Your task to perform on an android device: uninstall "Indeed Job Search" Image 0: 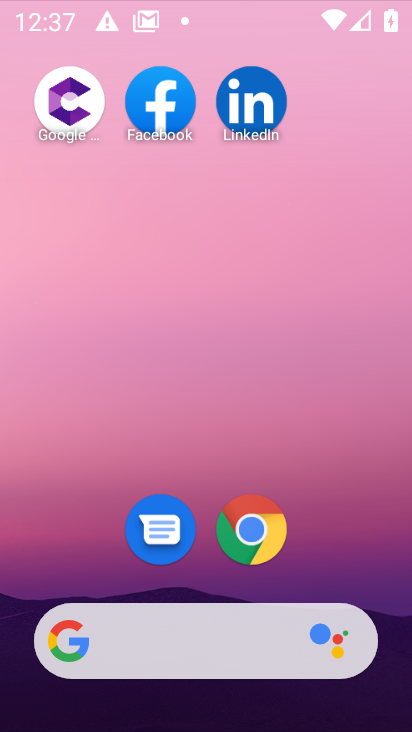
Step 0: drag from (162, 630) to (111, 56)
Your task to perform on an android device: uninstall "Indeed Job Search" Image 1: 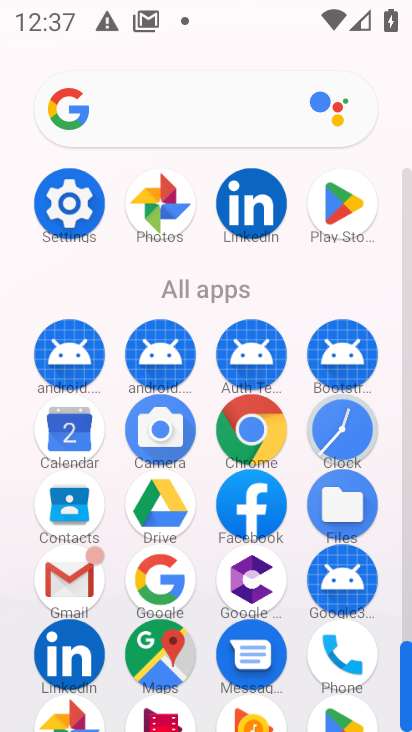
Step 1: click (335, 225)
Your task to perform on an android device: uninstall "Indeed Job Search" Image 2: 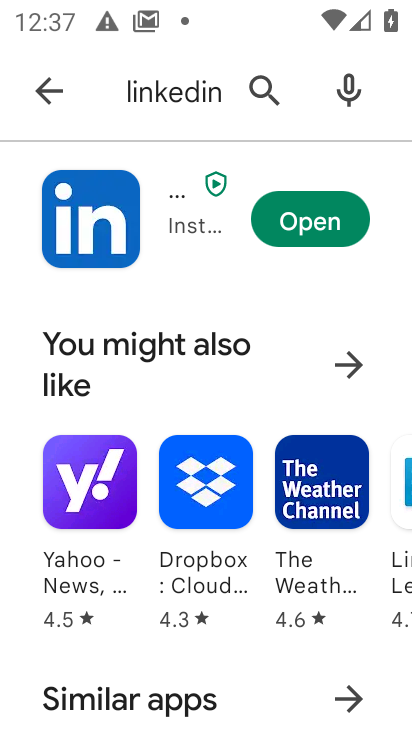
Step 2: click (272, 96)
Your task to perform on an android device: uninstall "Indeed Job Search" Image 3: 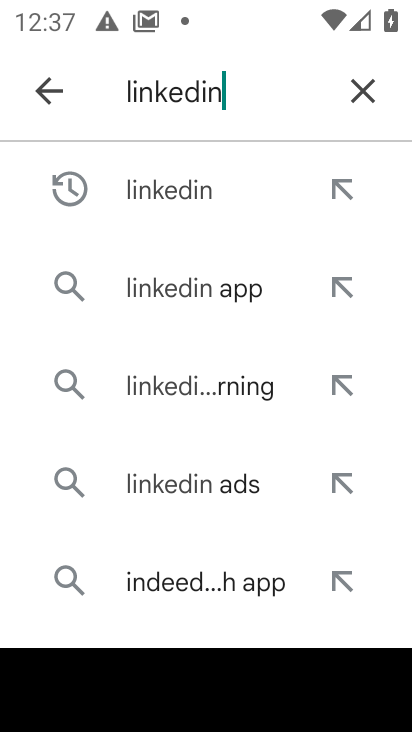
Step 3: click (362, 84)
Your task to perform on an android device: uninstall "Indeed Job Search" Image 4: 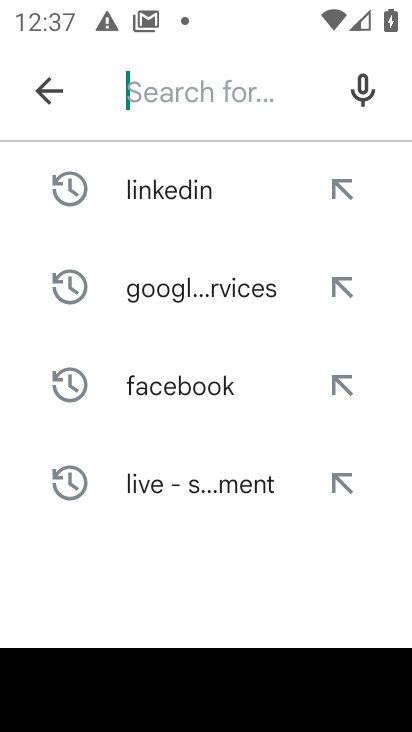
Step 4: type "Indeed Job Search"
Your task to perform on an android device: uninstall "Indeed Job Search" Image 5: 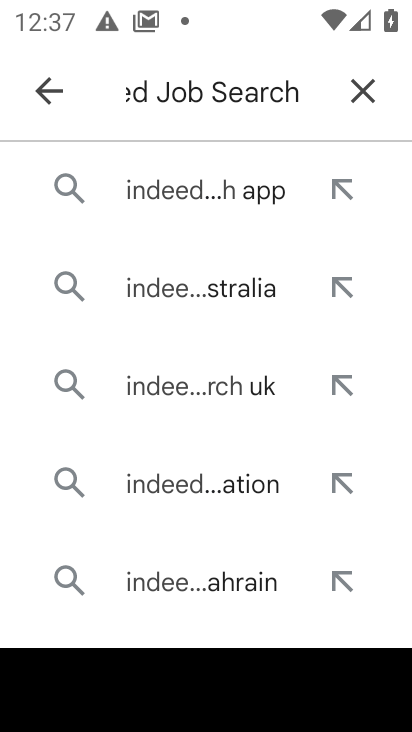
Step 5: click (228, 201)
Your task to perform on an android device: uninstall "Indeed Job Search" Image 6: 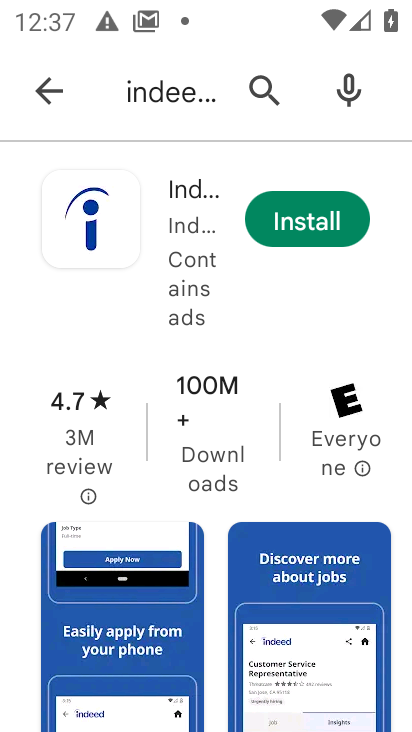
Step 6: task complete